Your task to perform on an android device: check storage Image 0: 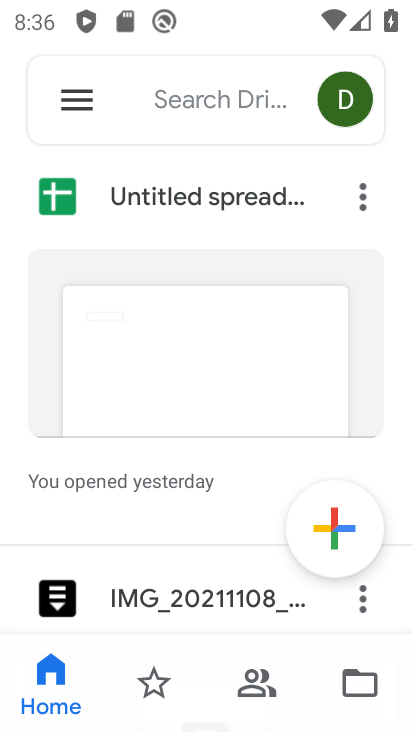
Step 0: press home button
Your task to perform on an android device: check storage Image 1: 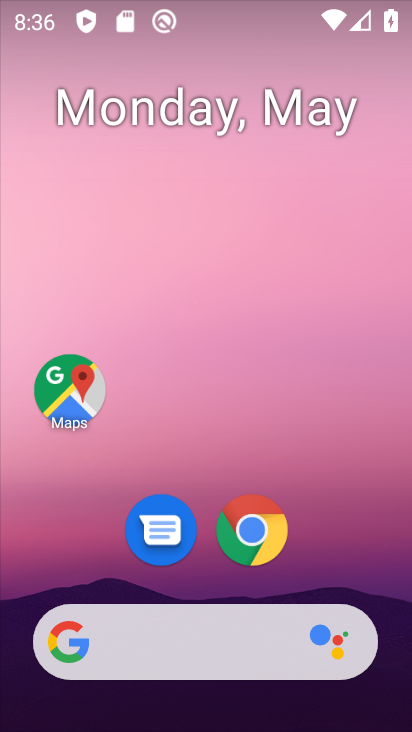
Step 1: drag from (160, 614) to (303, 5)
Your task to perform on an android device: check storage Image 2: 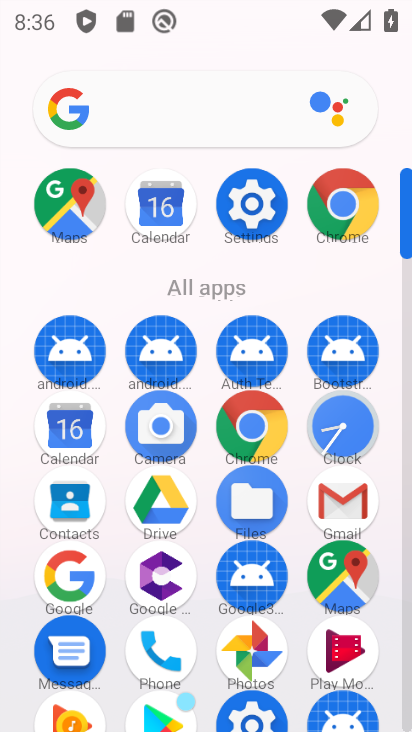
Step 2: click (295, 183)
Your task to perform on an android device: check storage Image 3: 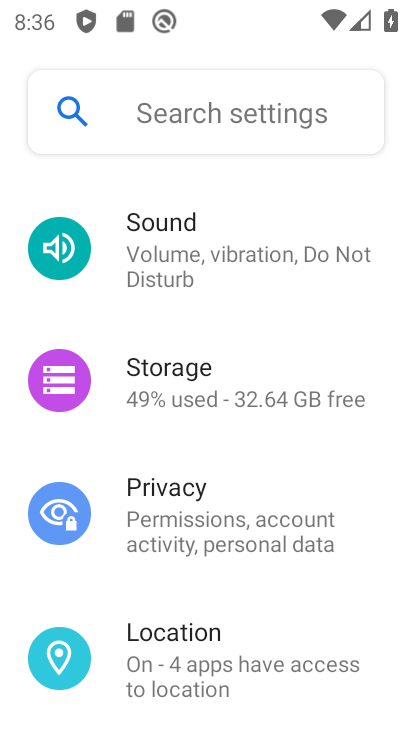
Step 3: click (184, 412)
Your task to perform on an android device: check storage Image 4: 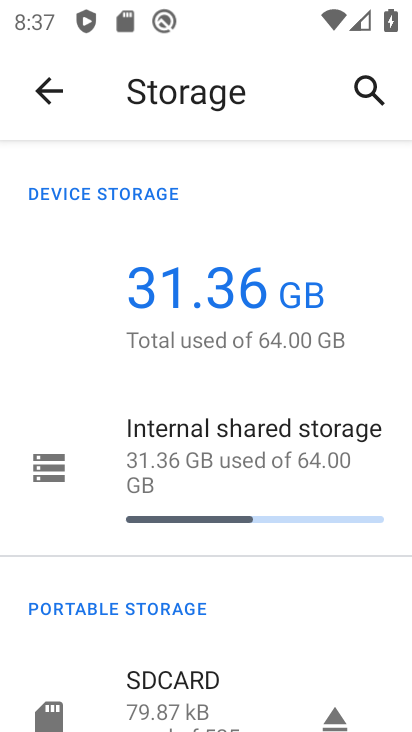
Step 4: click (205, 457)
Your task to perform on an android device: check storage Image 5: 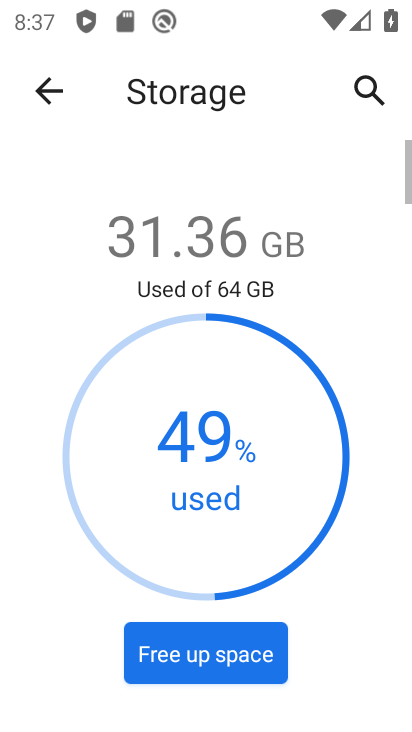
Step 5: task complete